Your task to perform on an android device: turn on bluetooth scan Image 0: 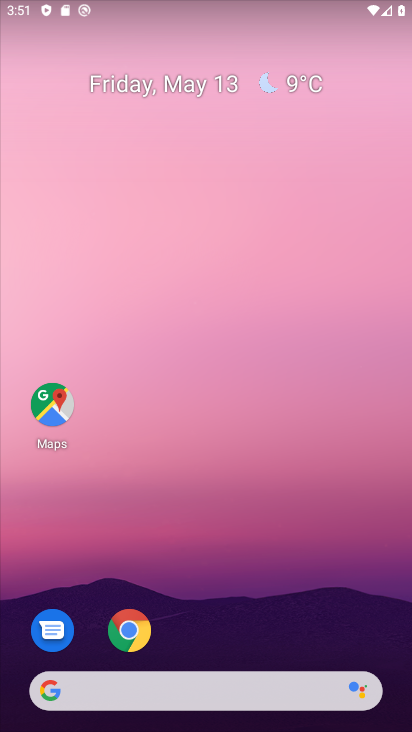
Step 0: drag from (250, 550) to (196, 63)
Your task to perform on an android device: turn on bluetooth scan Image 1: 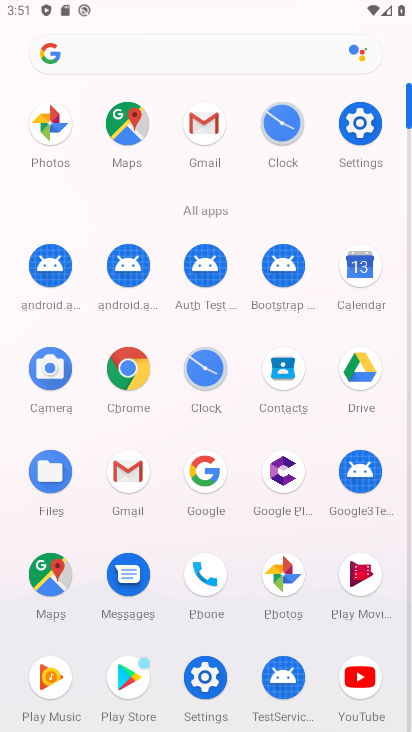
Step 1: drag from (13, 570) to (8, 226)
Your task to perform on an android device: turn on bluetooth scan Image 2: 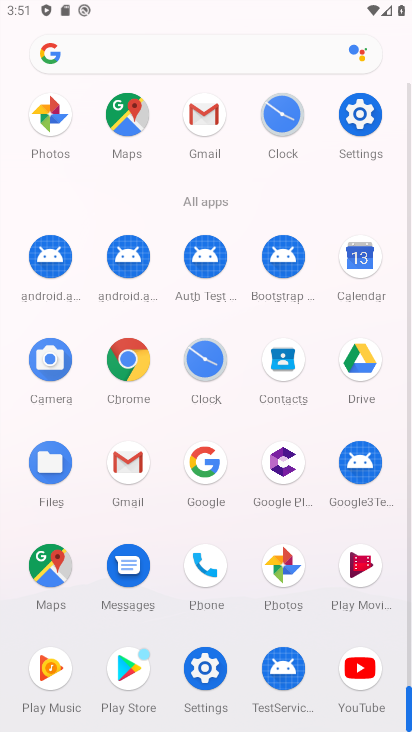
Step 2: click (201, 666)
Your task to perform on an android device: turn on bluetooth scan Image 3: 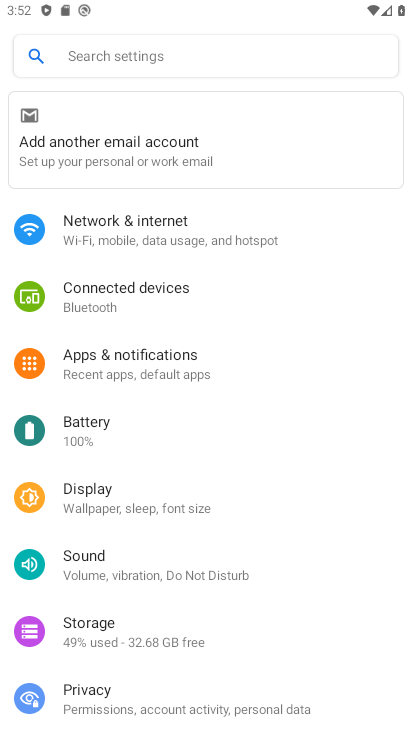
Step 3: drag from (245, 518) to (258, 215)
Your task to perform on an android device: turn on bluetooth scan Image 4: 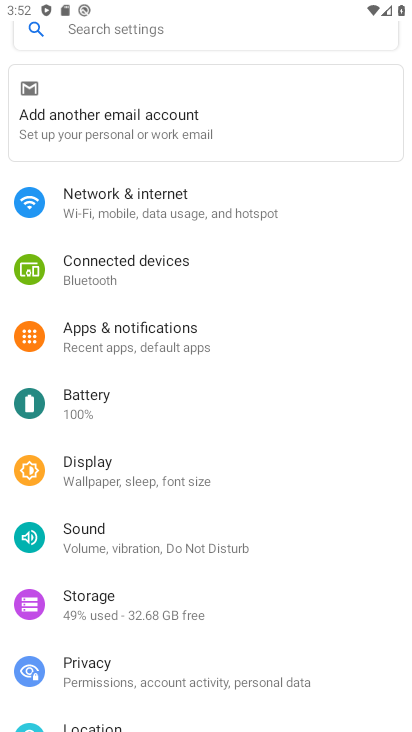
Step 4: drag from (244, 306) to (248, 222)
Your task to perform on an android device: turn on bluetooth scan Image 5: 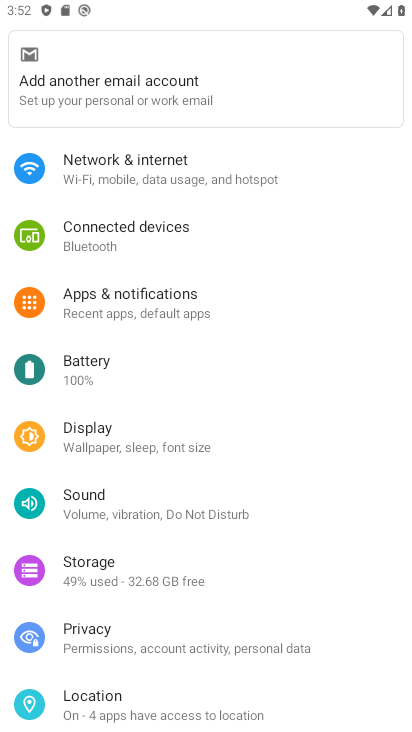
Step 5: drag from (232, 364) to (239, 190)
Your task to perform on an android device: turn on bluetooth scan Image 6: 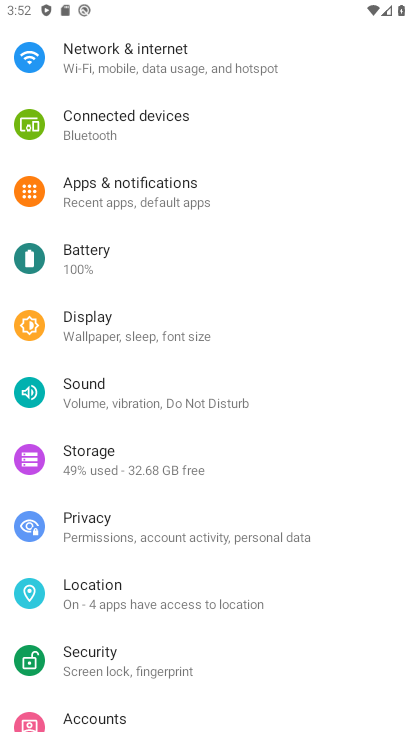
Step 6: click (119, 590)
Your task to perform on an android device: turn on bluetooth scan Image 7: 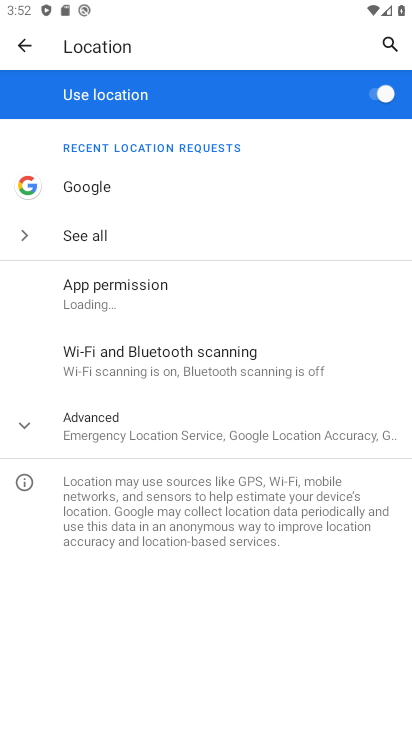
Step 7: click (125, 351)
Your task to perform on an android device: turn on bluetooth scan Image 8: 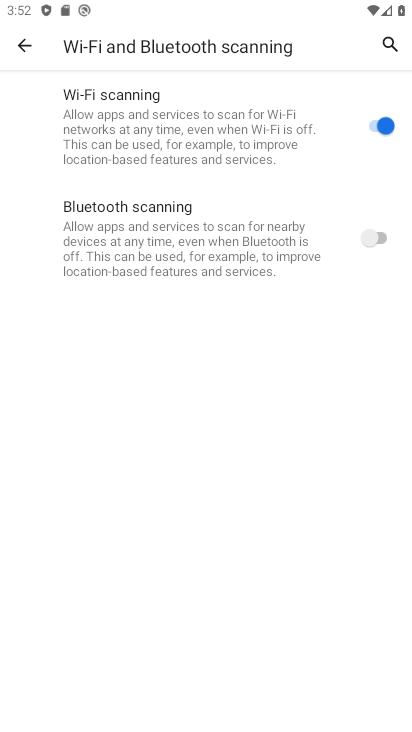
Step 8: click (370, 239)
Your task to perform on an android device: turn on bluetooth scan Image 9: 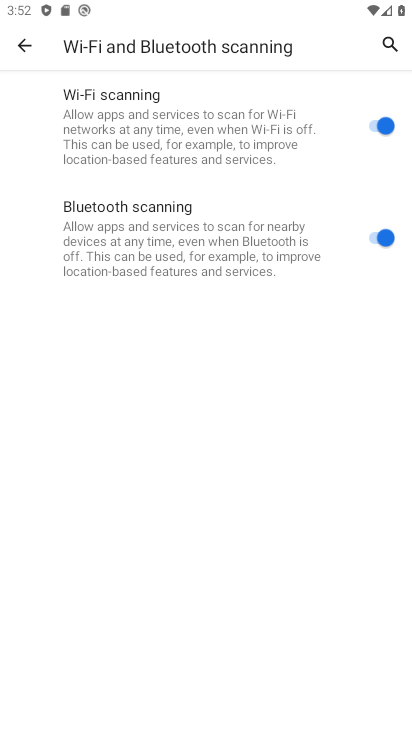
Step 9: task complete